Your task to perform on an android device: turn on data saver in the chrome app Image 0: 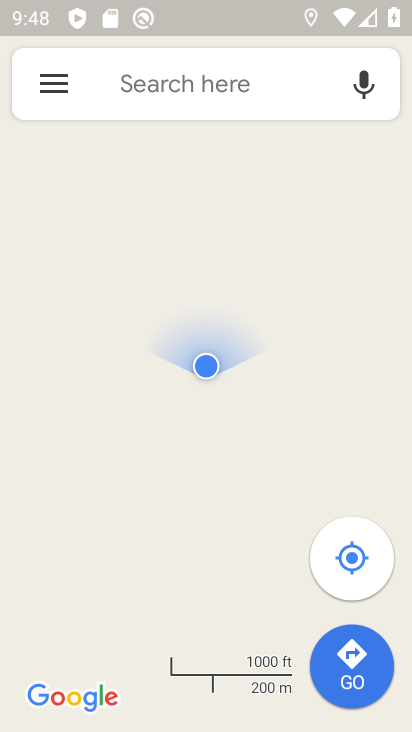
Step 0: press home button
Your task to perform on an android device: turn on data saver in the chrome app Image 1: 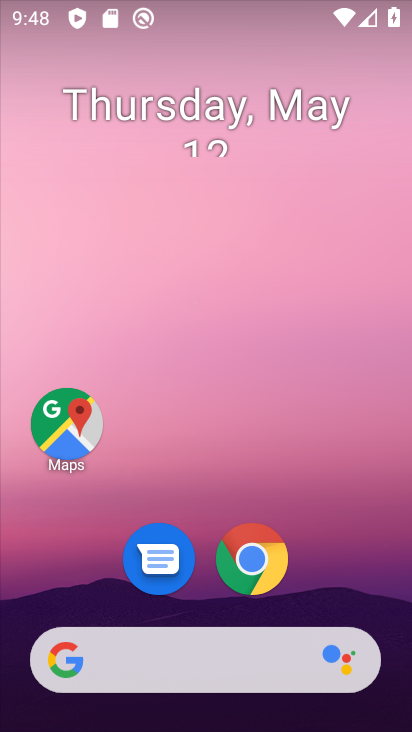
Step 1: drag from (210, 561) to (165, 4)
Your task to perform on an android device: turn on data saver in the chrome app Image 2: 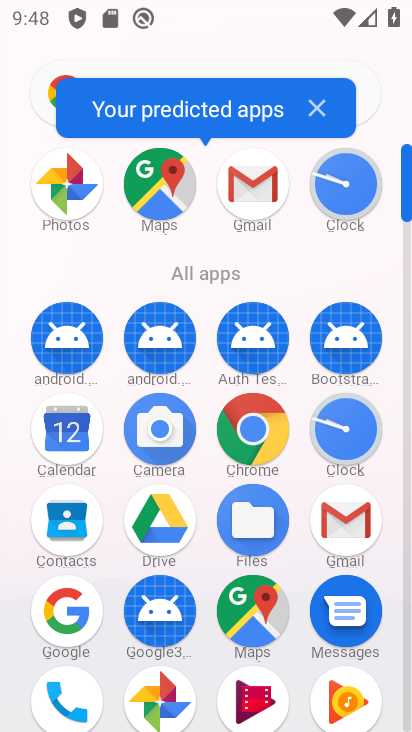
Step 2: click (272, 440)
Your task to perform on an android device: turn on data saver in the chrome app Image 3: 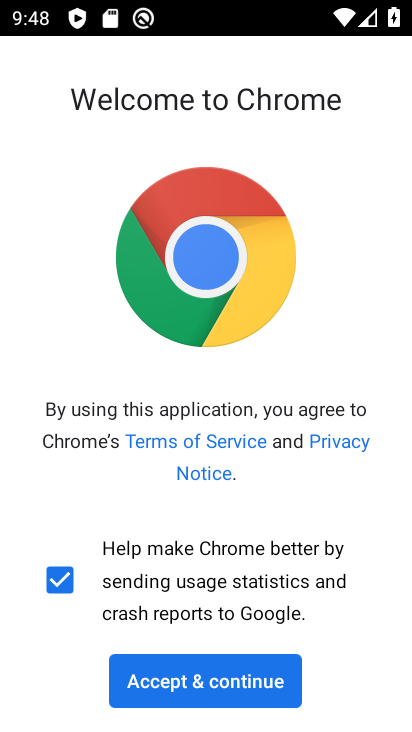
Step 3: click (243, 687)
Your task to perform on an android device: turn on data saver in the chrome app Image 4: 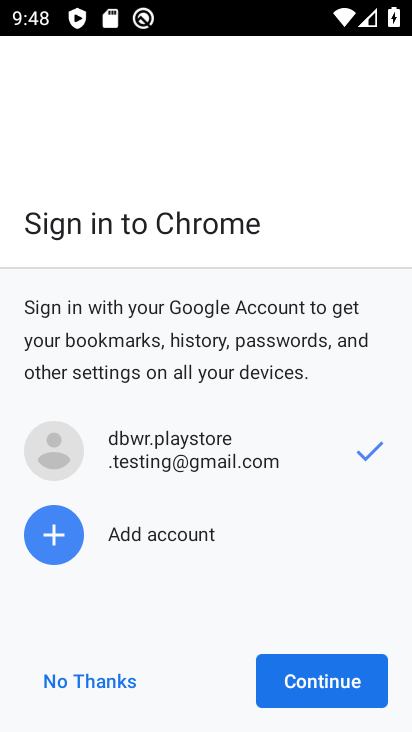
Step 4: click (327, 683)
Your task to perform on an android device: turn on data saver in the chrome app Image 5: 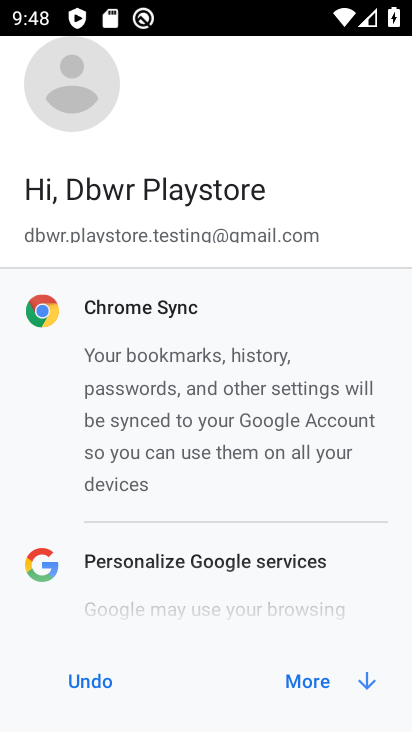
Step 5: click (314, 675)
Your task to perform on an android device: turn on data saver in the chrome app Image 6: 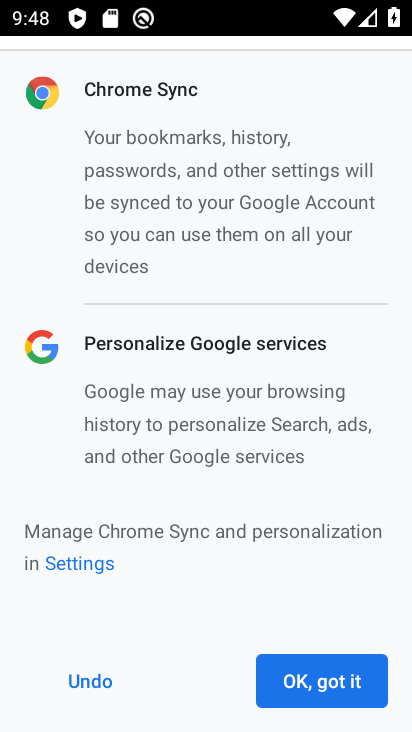
Step 6: click (314, 675)
Your task to perform on an android device: turn on data saver in the chrome app Image 7: 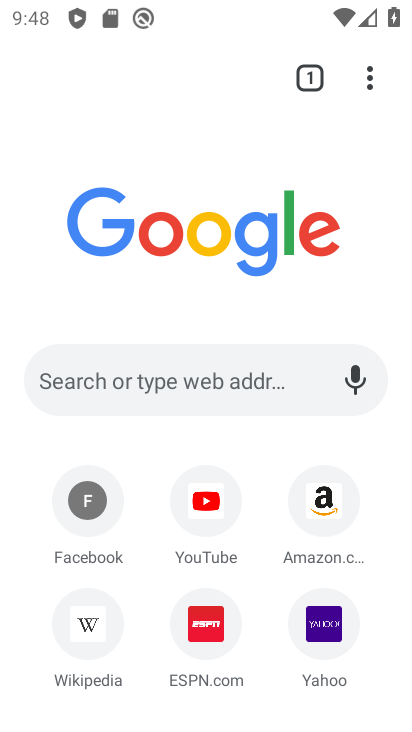
Step 7: click (367, 100)
Your task to perform on an android device: turn on data saver in the chrome app Image 8: 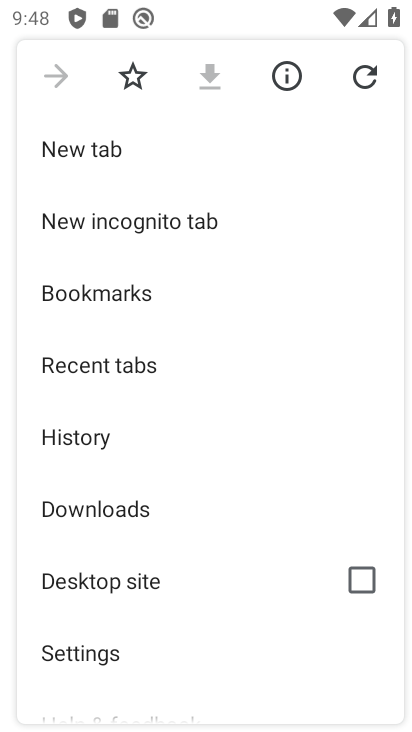
Step 8: drag from (100, 578) to (138, 285)
Your task to perform on an android device: turn on data saver in the chrome app Image 9: 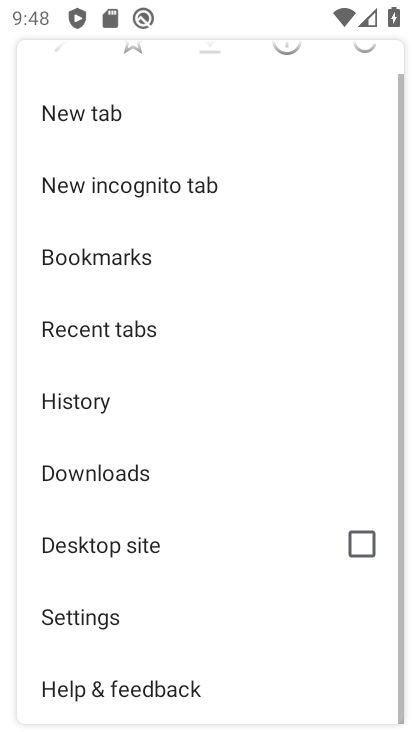
Step 9: click (88, 610)
Your task to perform on an android device: turn on data saver in the chrome app Image 10: 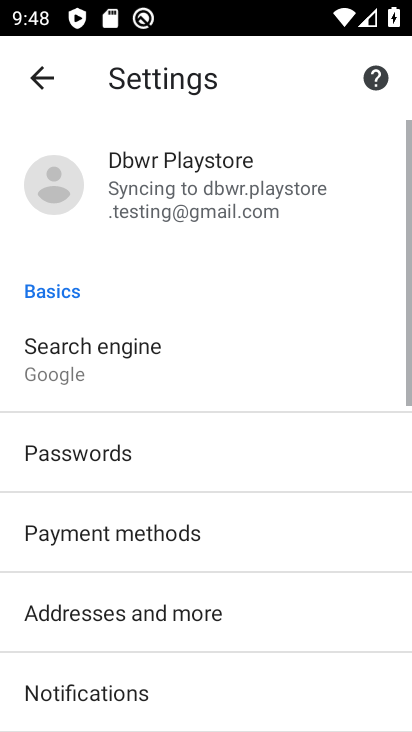
Step 10: drag from (108, 444) to (230, 0)
Your task to perform on an android device: turn on data saver in the chrome app Image 11: 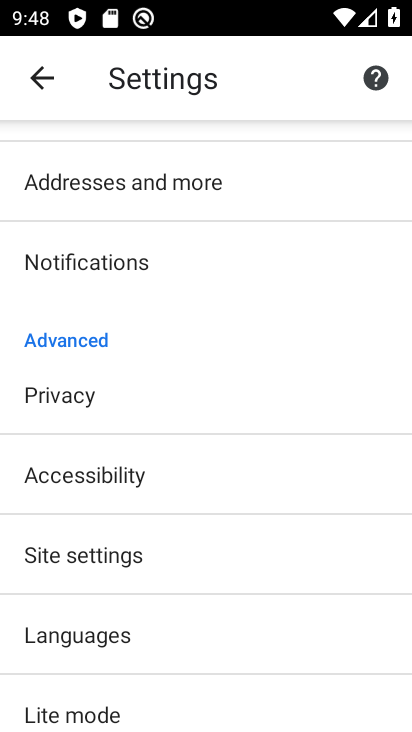
Step 11: drag from (92, 609) to (134, 256)
Your task to perform on an android device: turn on data saver in the chrome app Image 12: 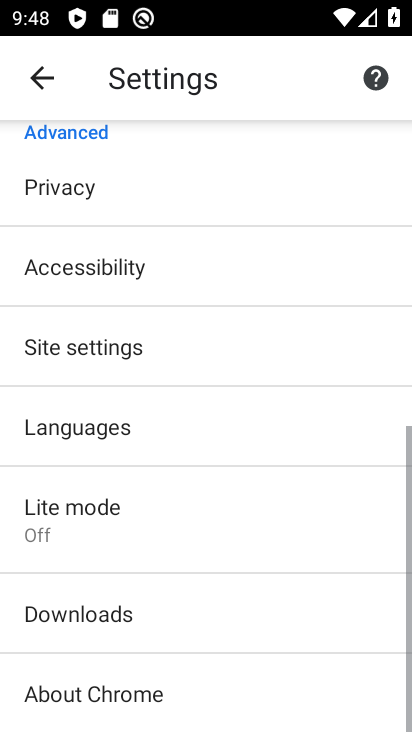
Step 12: click (64, 508)
Your task to perform on an android device: turn on data saver in the chrome app Image 13: 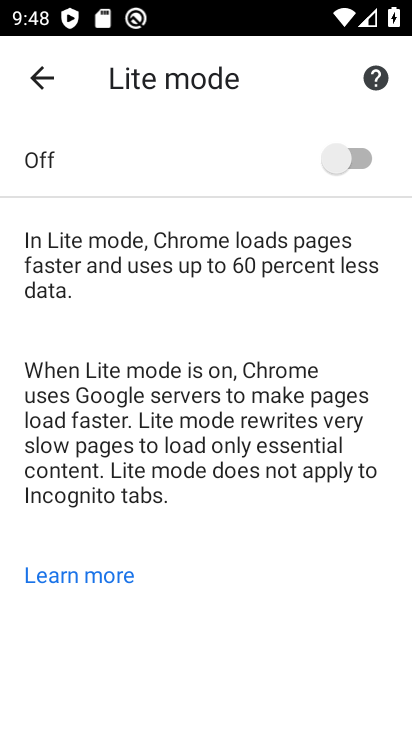
Step 13: click (388, 163)
Your task to perform on an android device: turn on data saver in the chrome app Image 14: 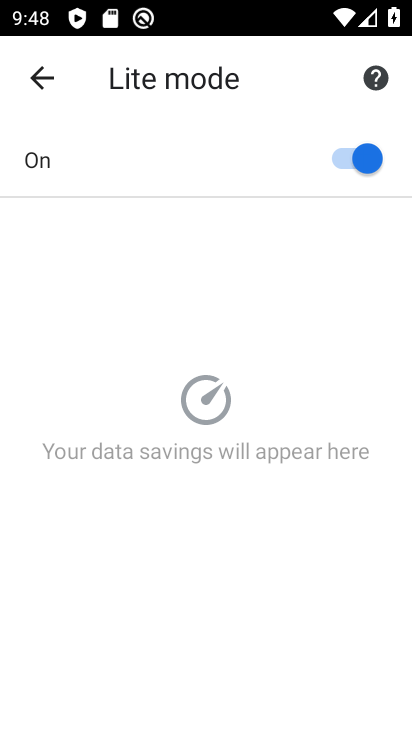
Step 14: task complete